Your task to perform on an android device: Open the map Image 0: 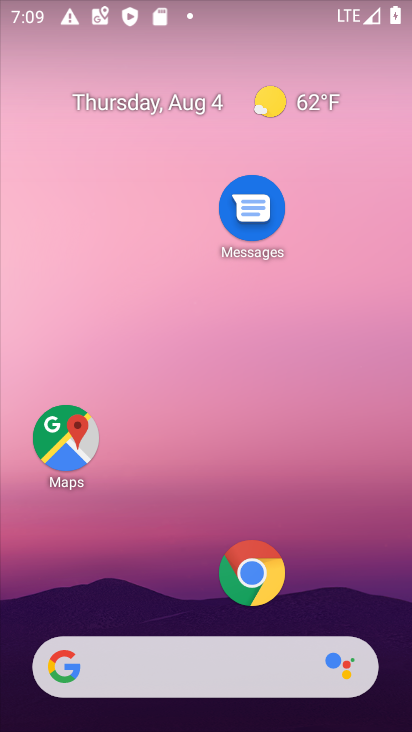
Step 0: press home button
Your task to perform on an android device: Open the map Image 1: 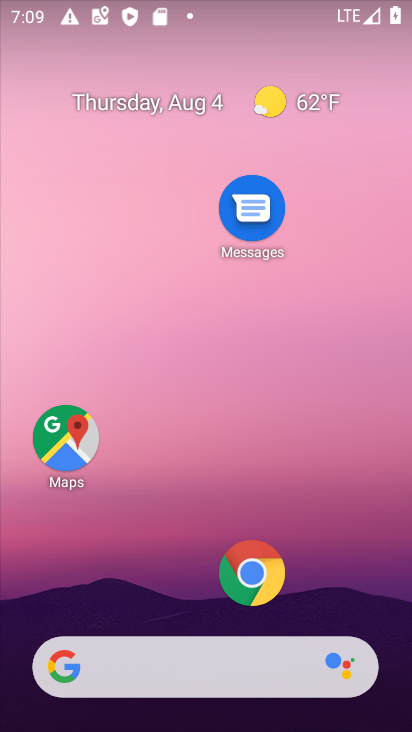
Step 1: click (63, 425)
Your task to perform on an android device: Open the map Image 2: 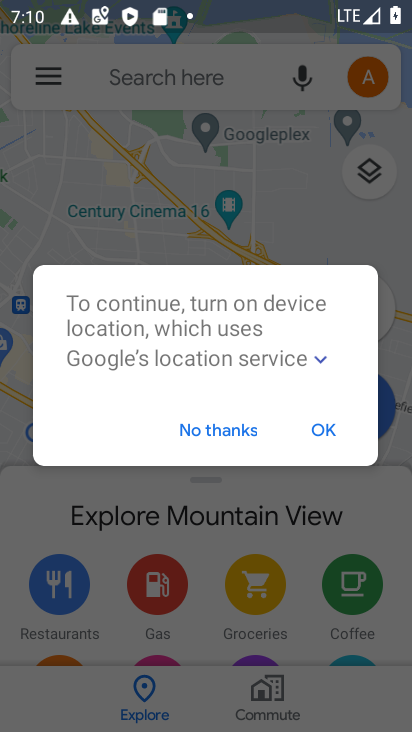
Step 2: click (217, 439)
Your task to perform on an android device: Open the map Image 3: 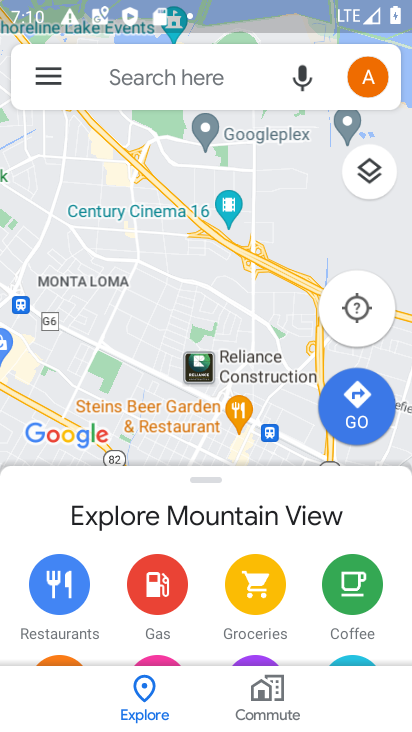
Step 3: task complete